Your task to perform on an android device: set the stopwatch Image 0: 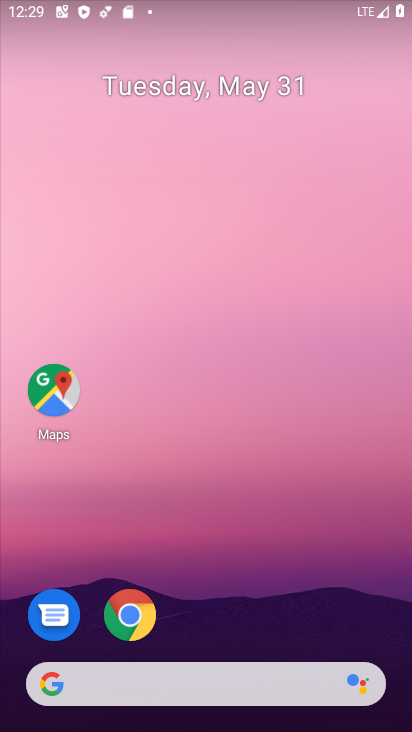
Step 0: drag from (231, 642) to (251, 2)
Your task to perform on an android device: set the stopwatch Image 1: 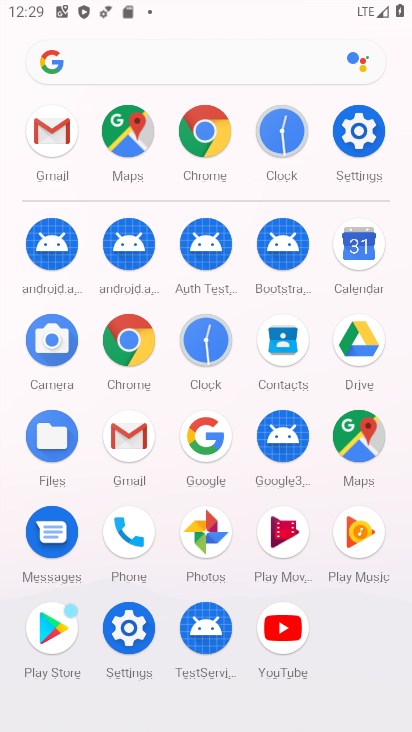
Step 1: click (200, 350)
Your task to perform on an android device: set the stopwatch Image 2: 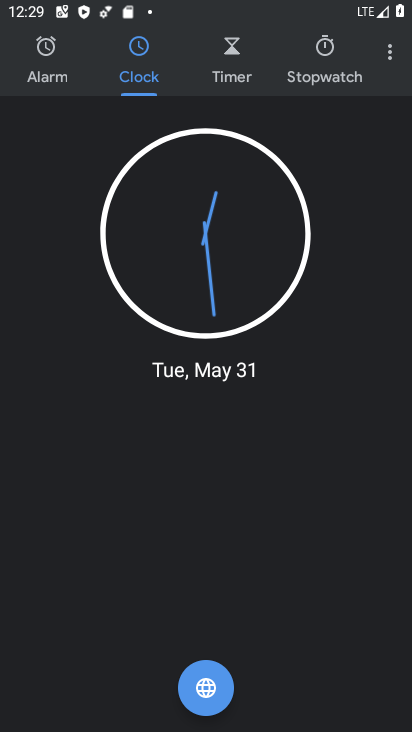
Step 2: click (306, 72)
Your task to perform on an android device: set the stopwatch Image 3: 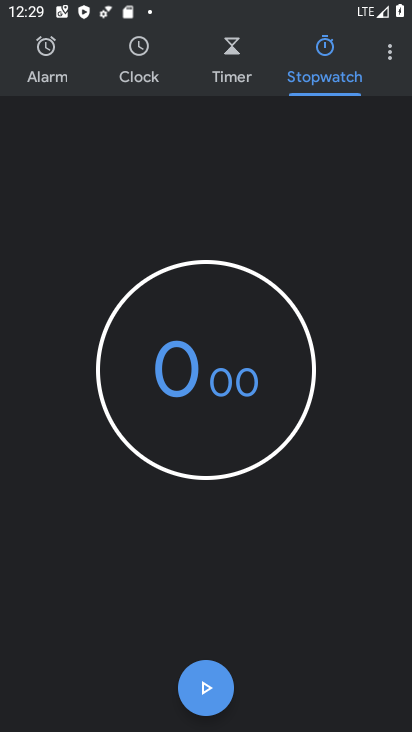
Step 3: click (200, 687)
Your task to perform on an android device: set the stopwatch Image 4: 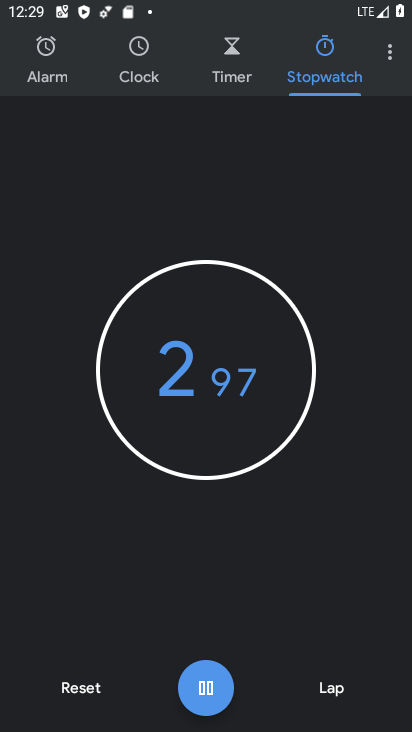
Step 4: task complete